Your task to perform on an android device: What's on my calendar for the rest of the week? Image 0: 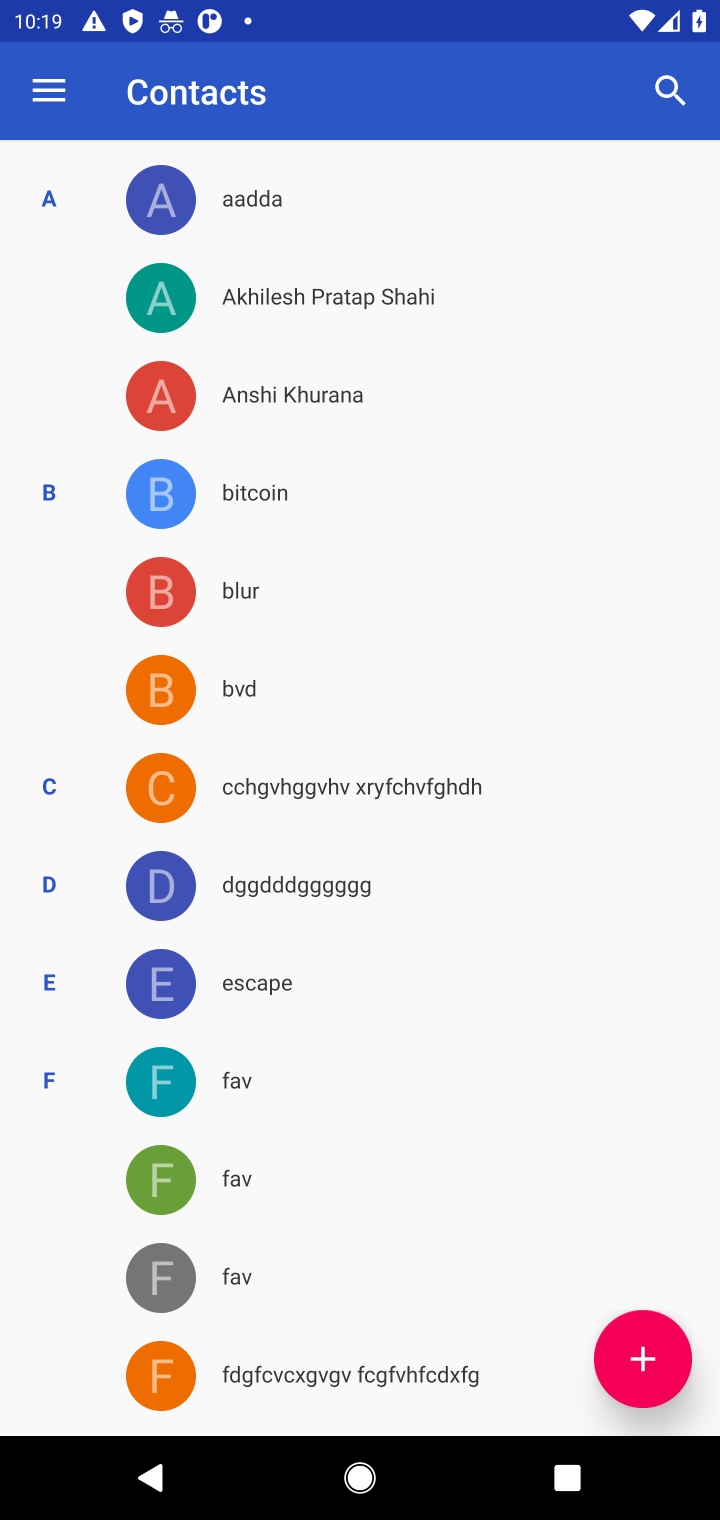
Step 0: press home button
Your task to perform on an android device: What's on my calendar for the rest of the week? Image 1: 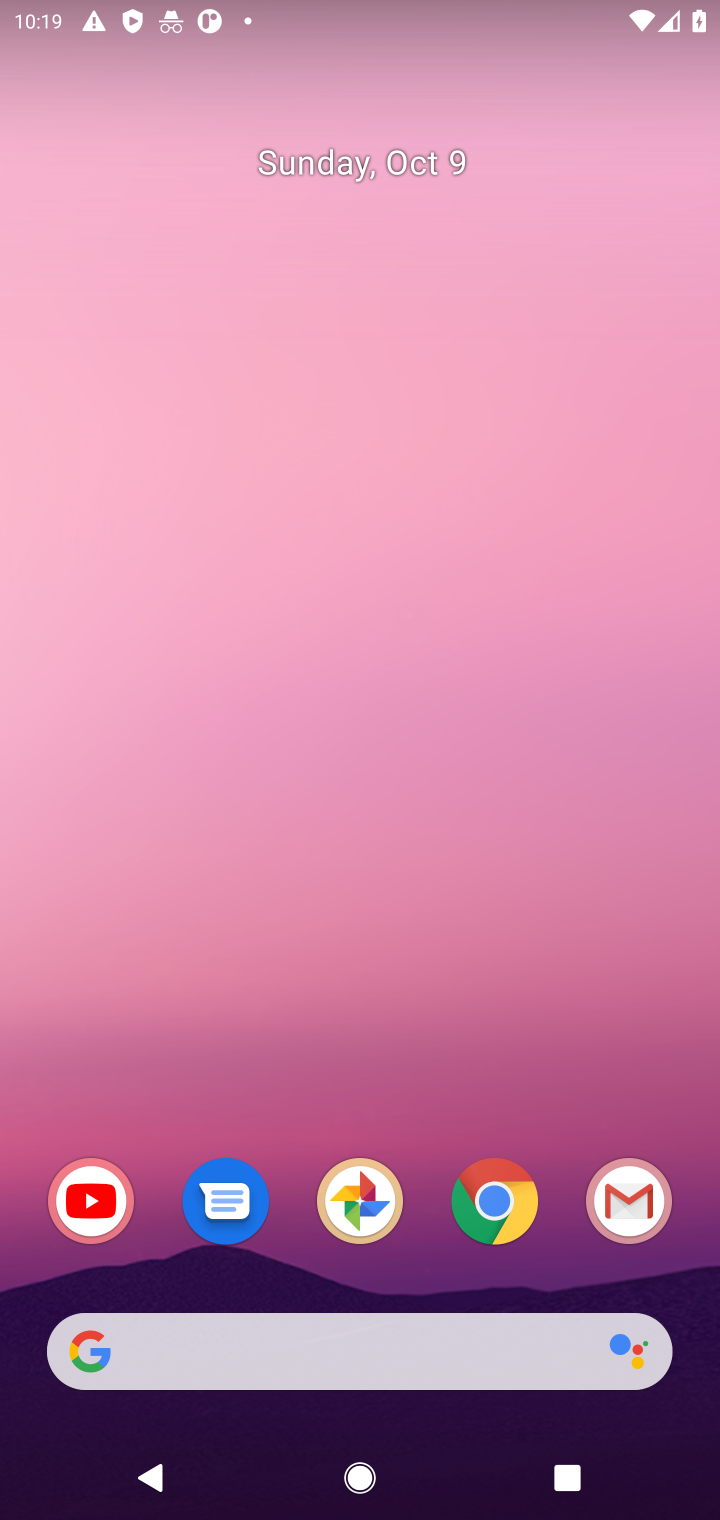
Step 1: drag from (317, 1244) to (314, 413)
Your task to perform on an android device: What's on my calendar for the rest of the week? Image 2: 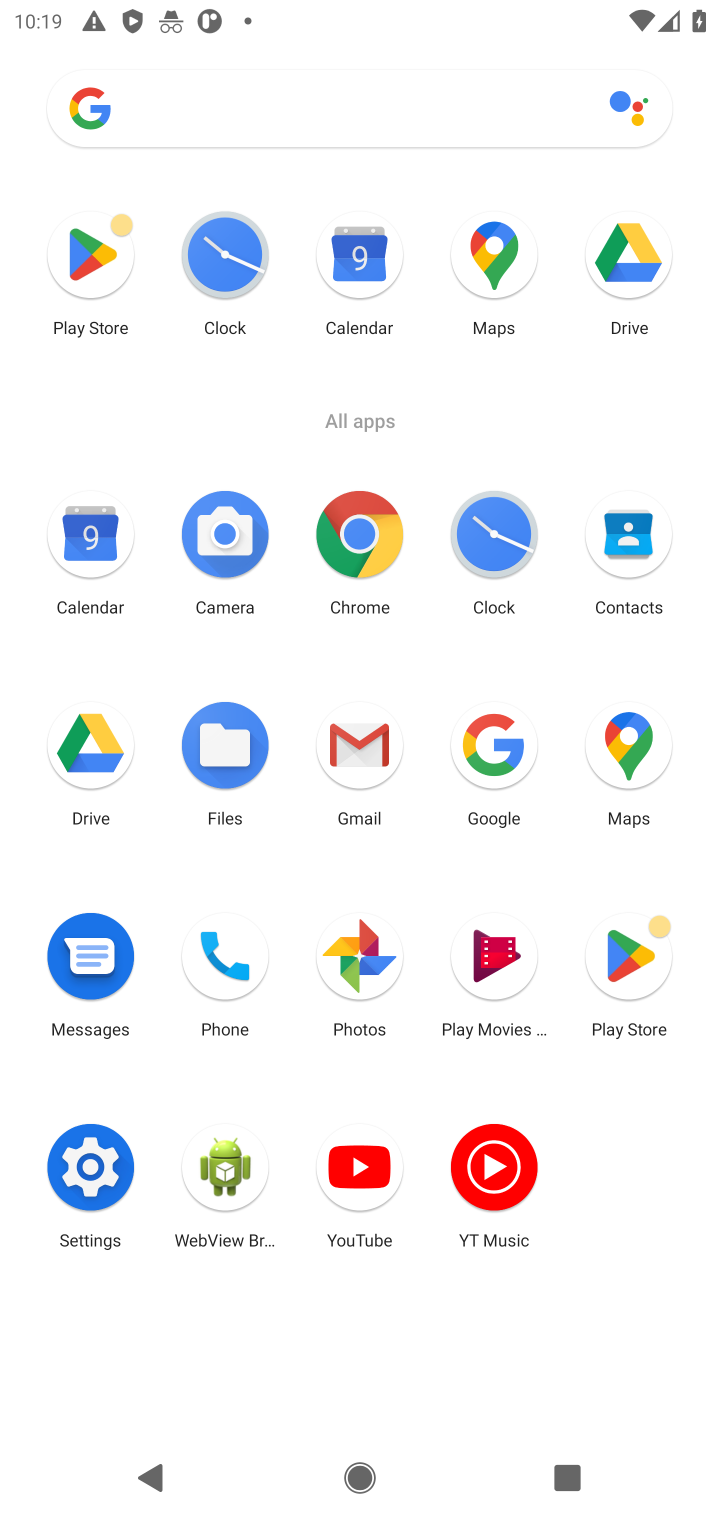
Step 2: click (86, 554)
Your task to perform on an android device: What's on my calendar for the rest of the week? Image 3: 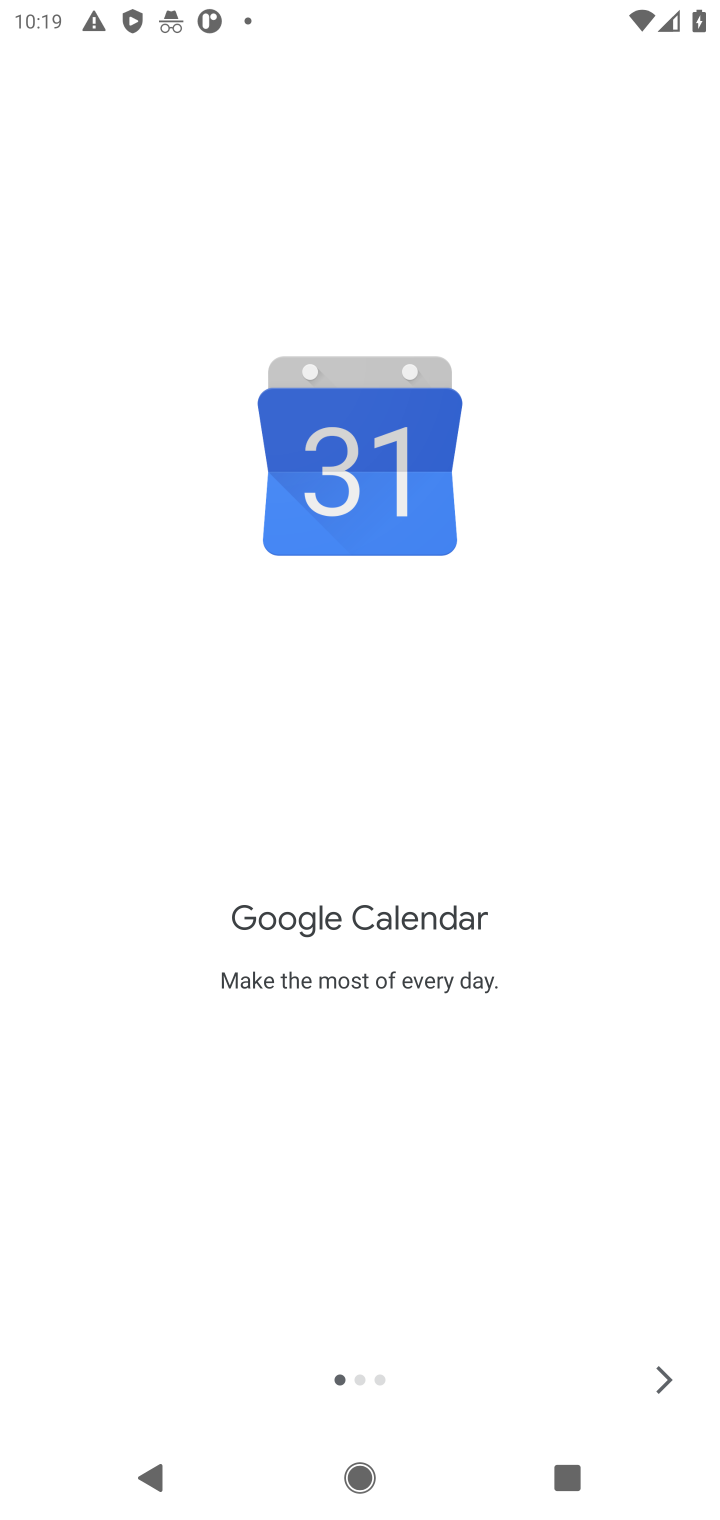
Step 3: click (662, 1374)
Your task to perform on an android device: What's on my calendar for the rest of the week? Image 4: 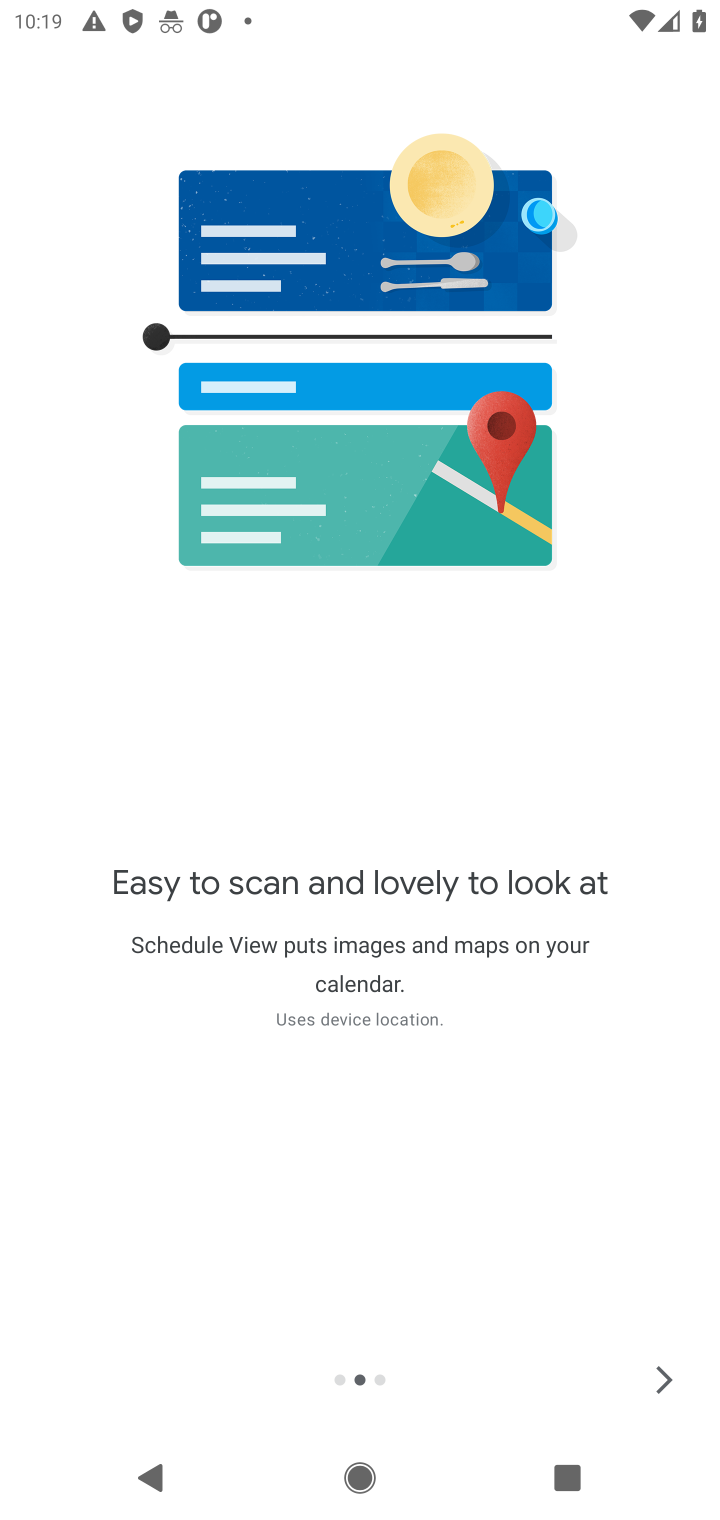
Step 4: click (662, 1374)
Your task to perform on an android device: What's on my calendar for the rest of the week? Image 5: 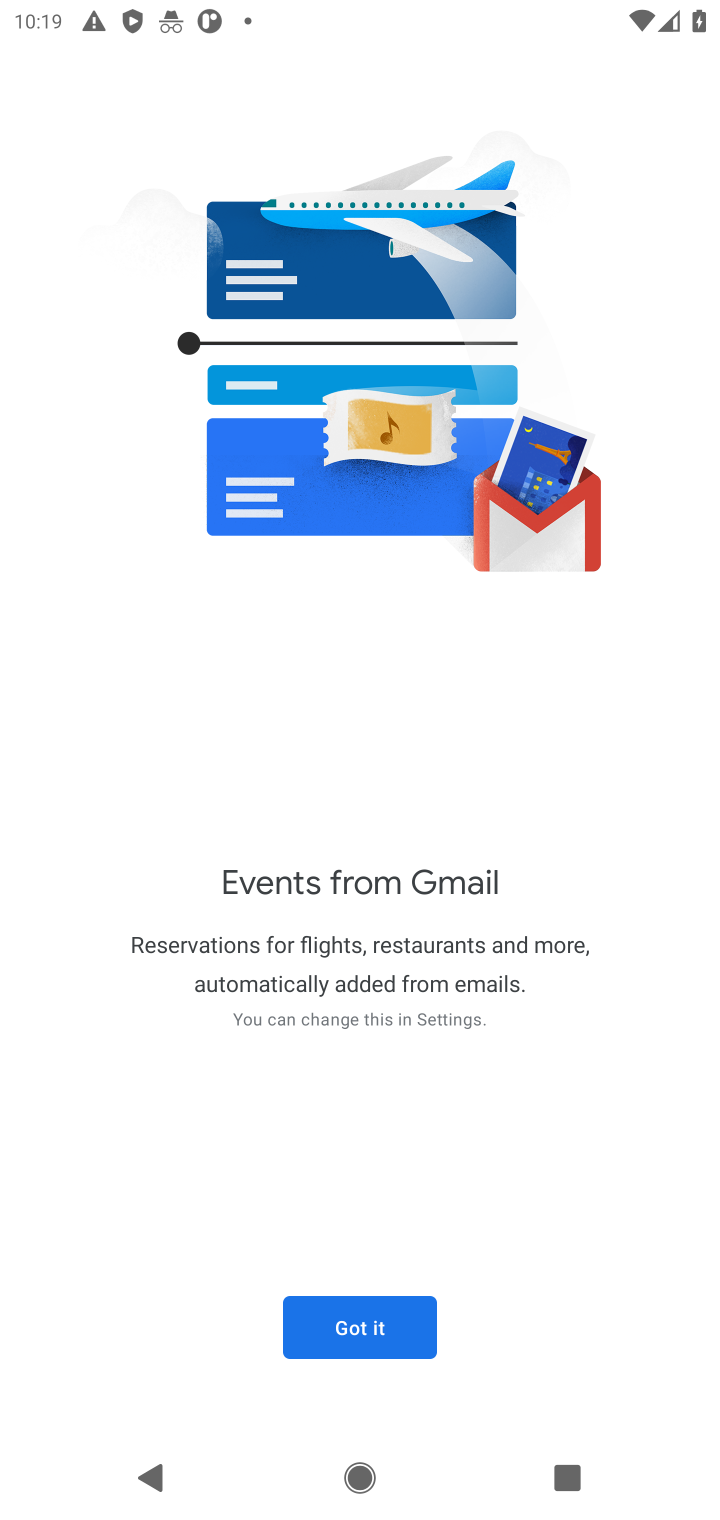
Step 5: click (373, 1312)
Your task to perform on an android device: What's on my calendar for the rest of the week? Image 6: 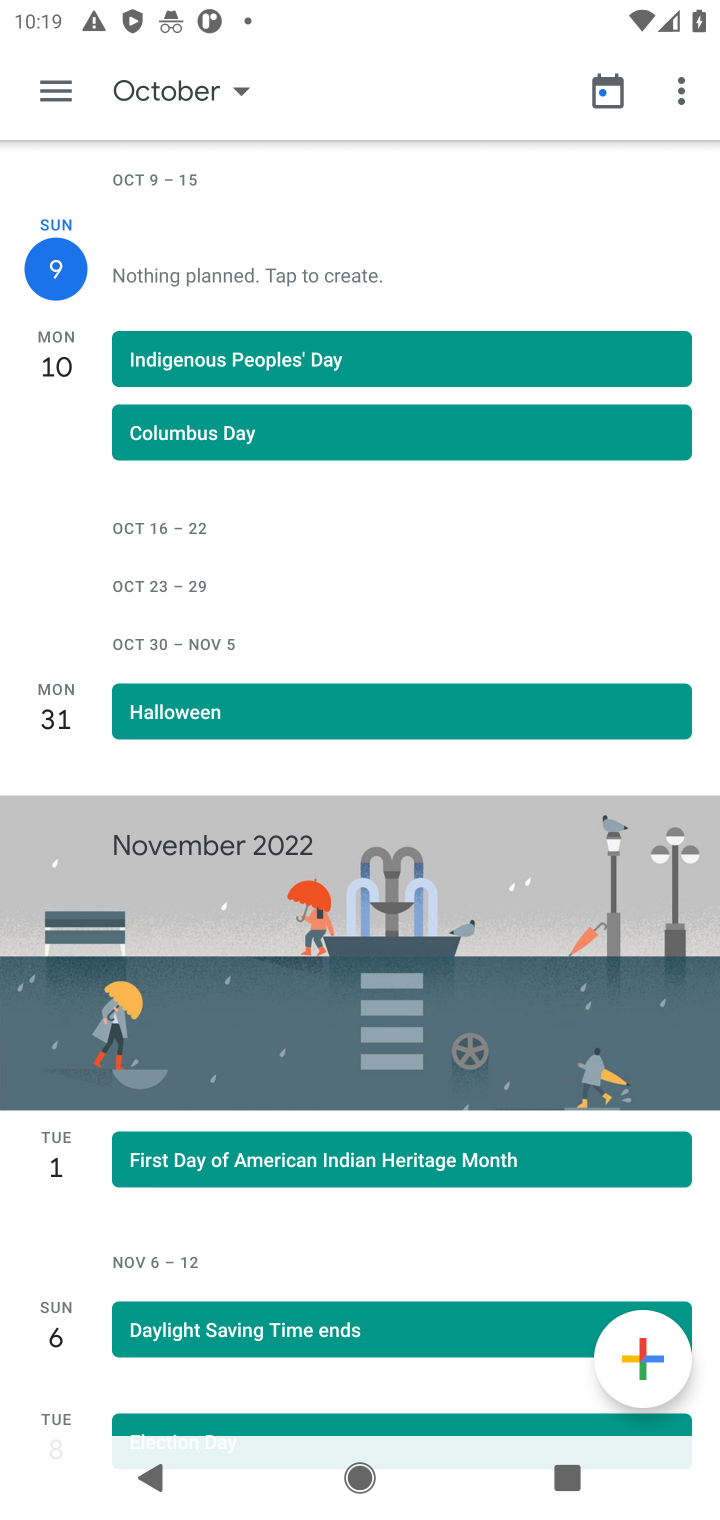
Step 6: click (33, 81)
Your task to perform on an android device: What's on my calendar for the rest of the week? Image 7: 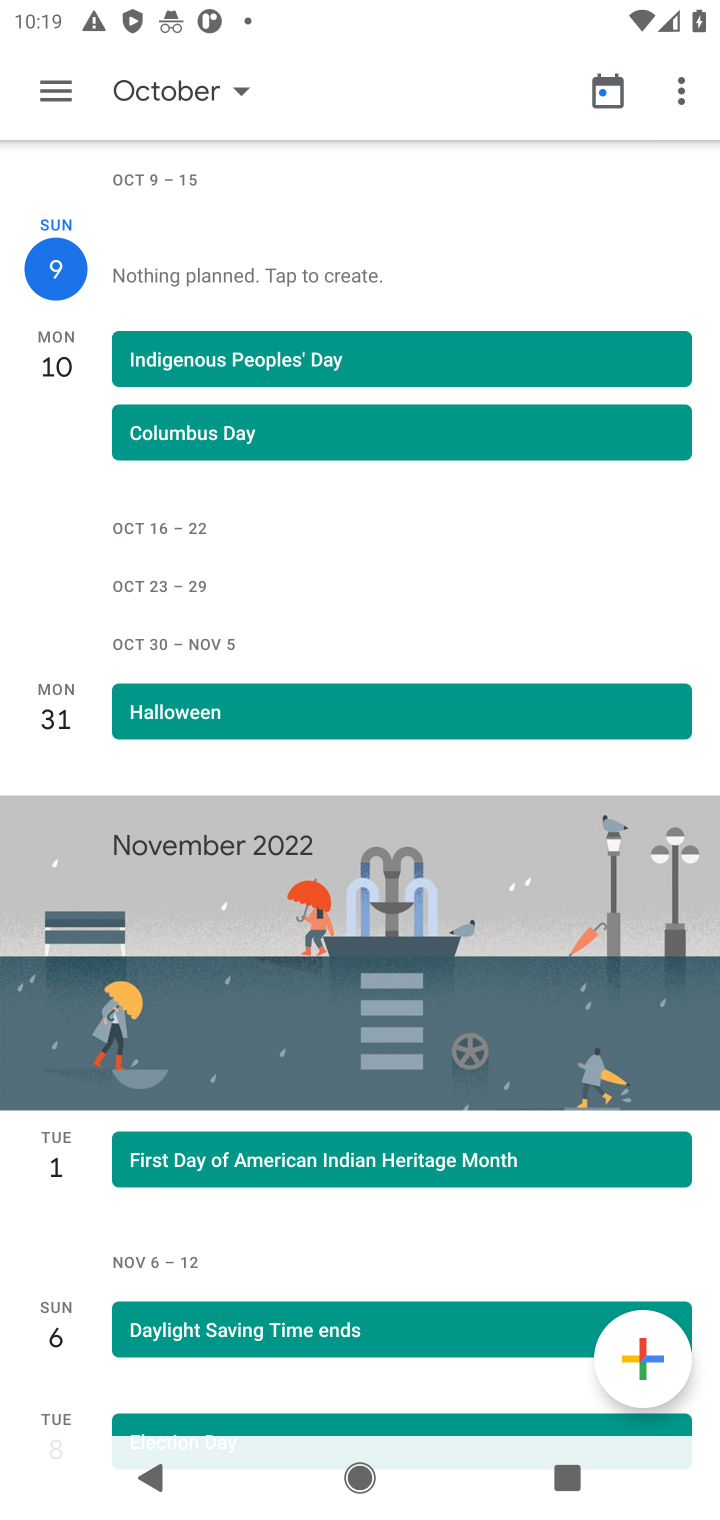
Step 7: click (65, 94)
Your task to perform on an android device: What's on my calendar for the rest of the week? Image 8: 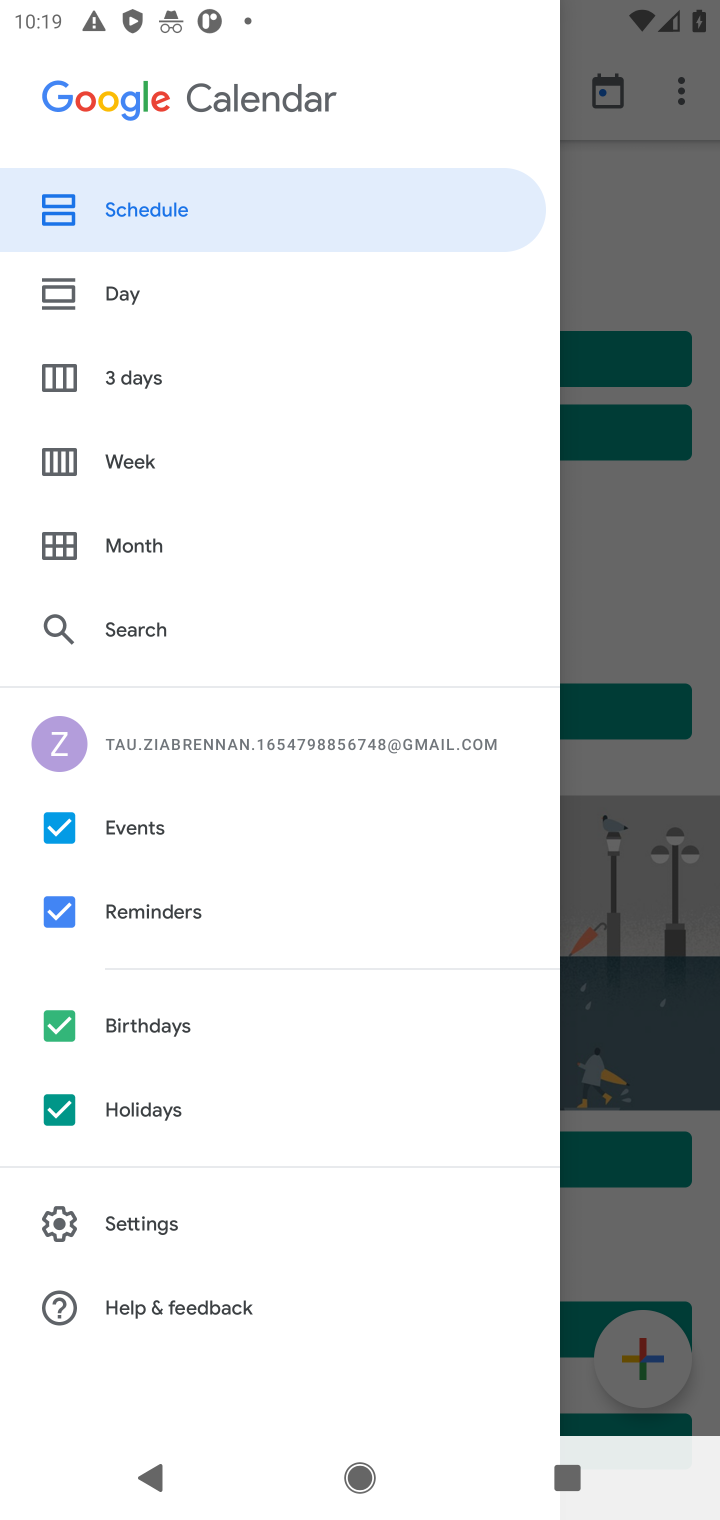
Step 8: click (131, 465)
Your task to perform on an android device: What's on my calendar for the rest of the week? Image 9: 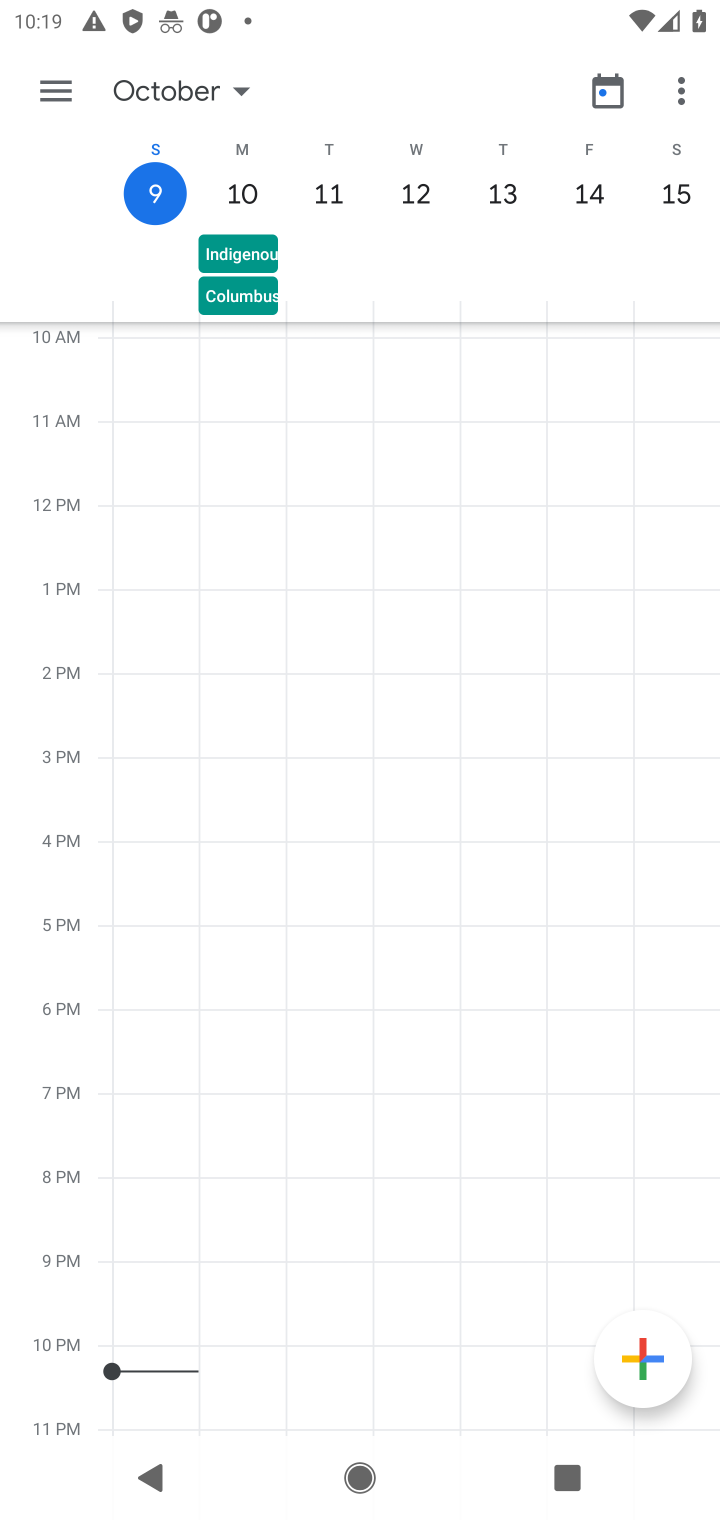
Step 9: task complete